Your task to perform on an android device: check the backup settings in the google photos Image 0: 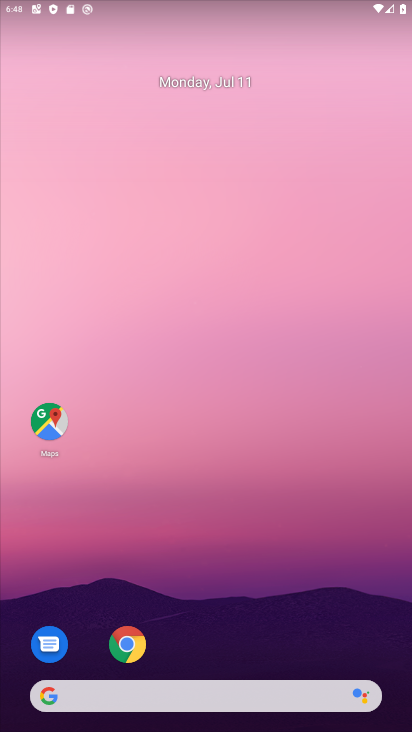
Step 0: drag from (293, 679) to (277, 16)
Your task to perform on an android device: check the backup settings in the google photos Image 1: 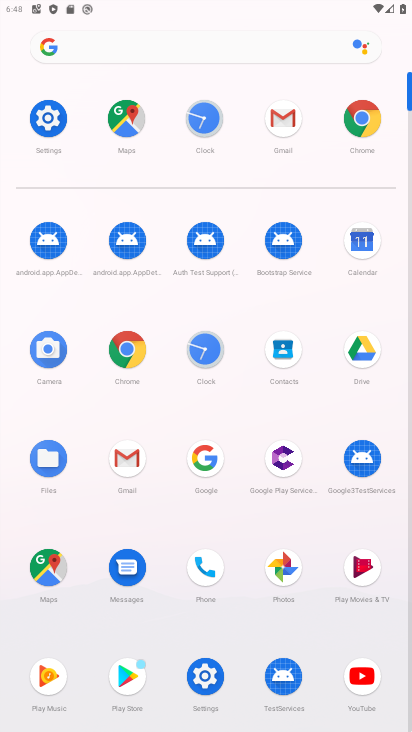
Step 1: press home button
Your task to perform on an android device: check the backup settings in the google photos Image 2: 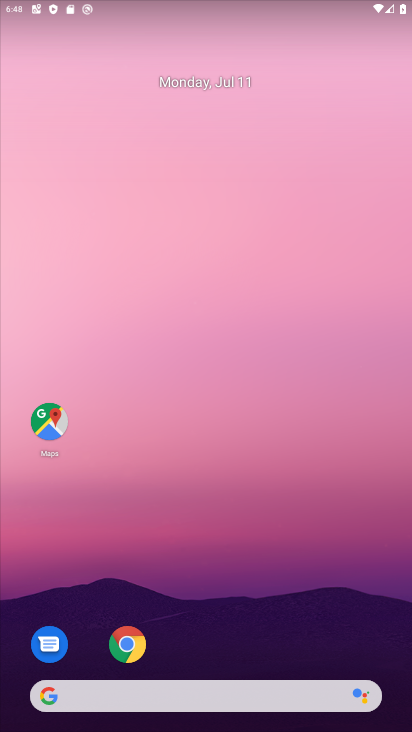
Step 2: drag from (228, 584) to (212, 110)
Your task to perform on an android device: check the backup settings in the google photos Image 3: 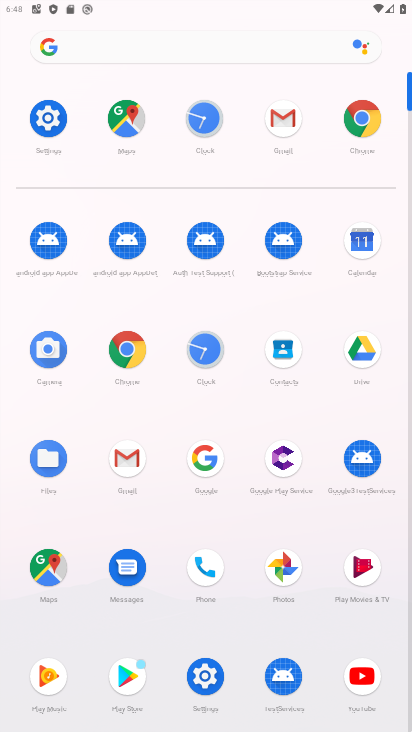
Step 3: click (285, 571)
Your task to perform on an android device: check the backup settings in the google photos Image 4: 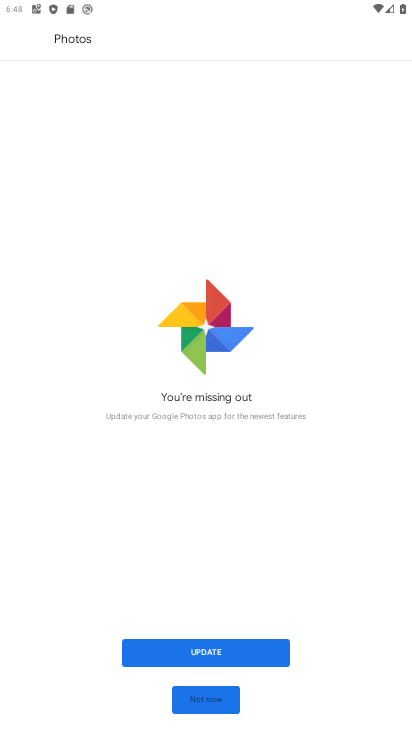
Step 4: click (234, 648)
Your task to perform on an android device: check the backup settings in the google photos Image 5: 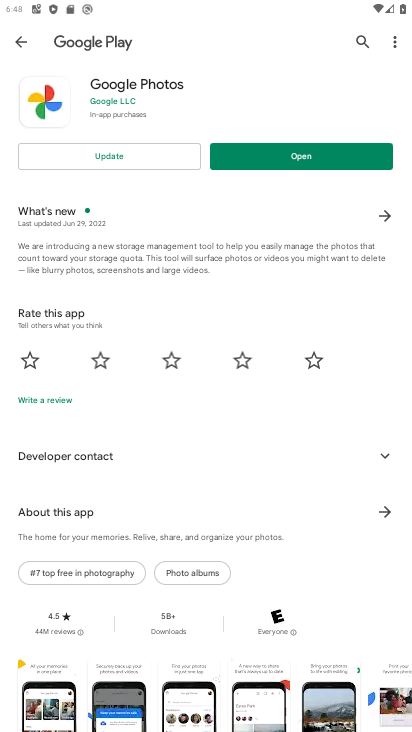
Step 5: click (131, 149)
Your task to perform on an android device: check the backup settings in the google photos Image 6: 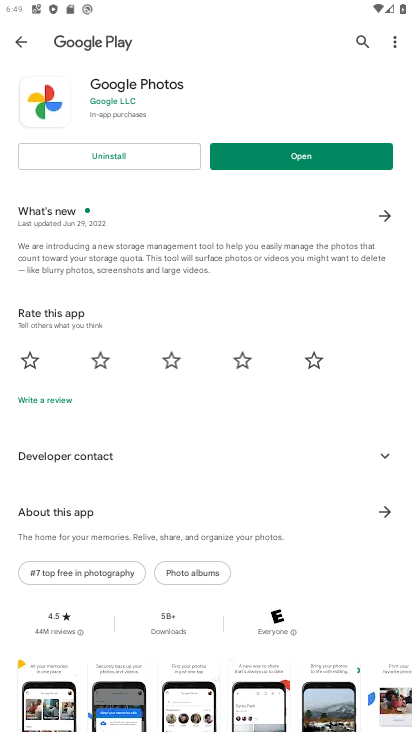
Step 6: click (237, 149)
Your task to perform on an android device: check the backup settings in the google photos Image 7: 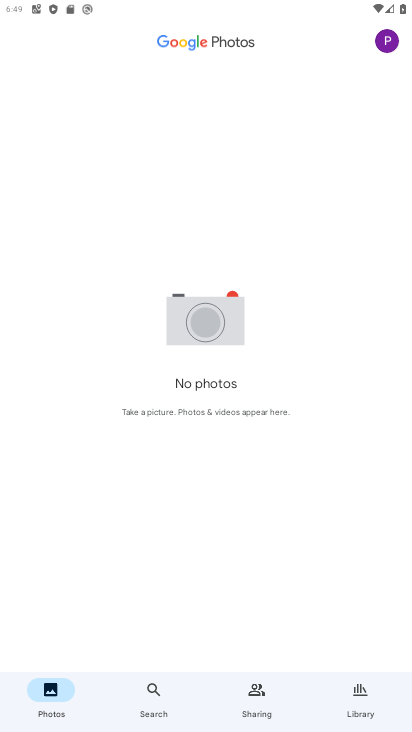
Step 7: click (394, 35)
Your task to perform on an android device: check the backup settings in the google photos Image 8: 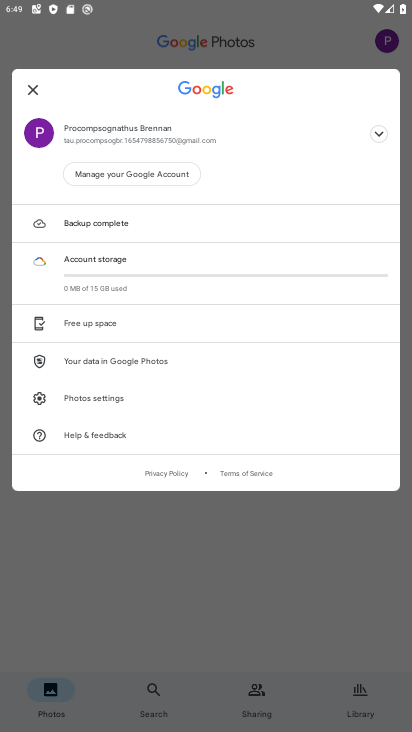
Step 8: click (92, 393)
Your task to perform on an android device: check the backup settings in the google photos Image 9: 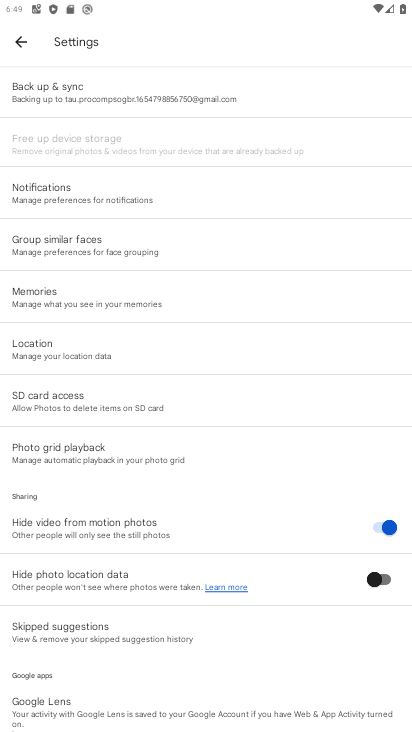
Step 9: click (175, 93)
Your task to perform on an android device: check the backup settings in the google photos Image 10: 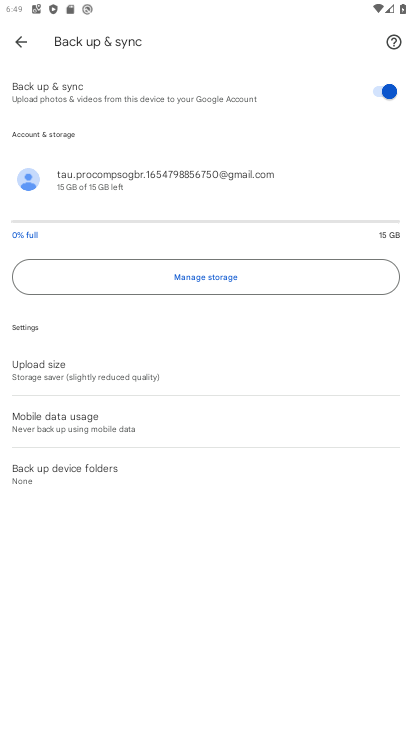
Step 10: task complete